Your task to perform on an android device: Show me popular videos on Youtube Image 0: 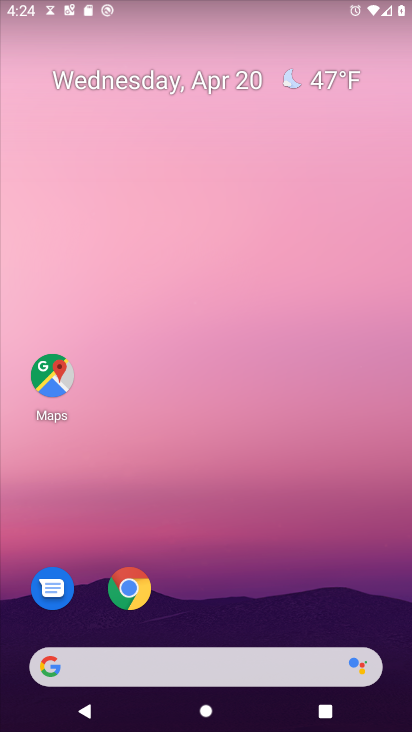
Step 0: drag from (237, 595) to (263, 67)
Your task to perform on an android device: Show me popular videos on Youtube Image 1: 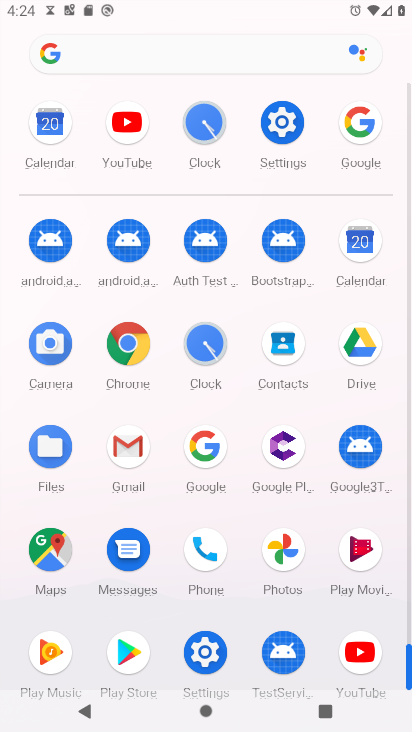
Step 1: click (117, 118)
Your task to perform on an android device: Show me popular videos on Youtube Image 2: 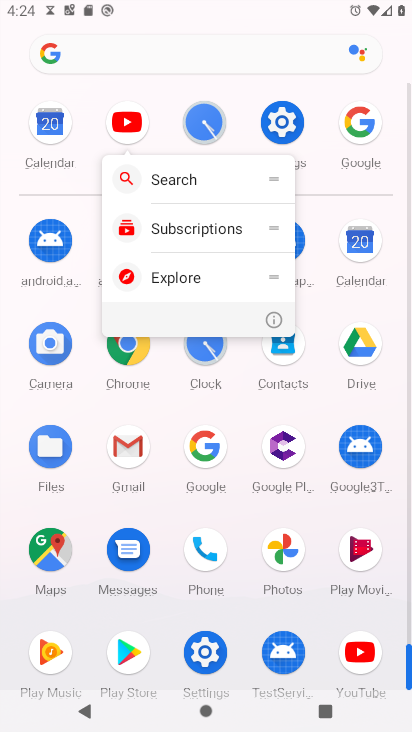
Step 2: click (117, 118)
Your task to perform on an android device: Show me popular videos on Youtube Image 3: 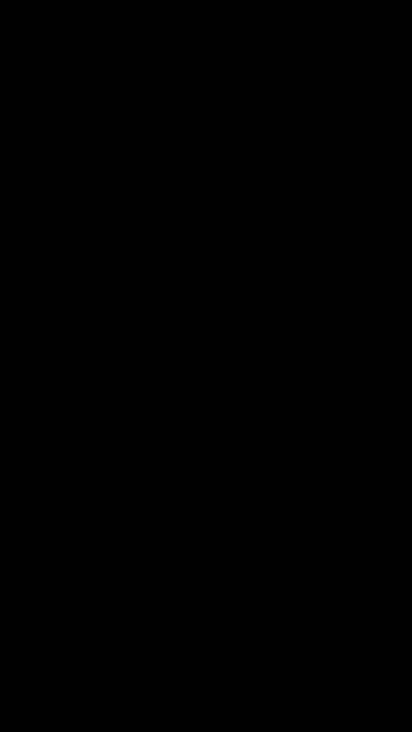
Step 3: task complete